Your task to perform on an android device: View the shopping cart on target.com. Add alienware area 51 to the cart on target.com, then select checkout. Image 0: 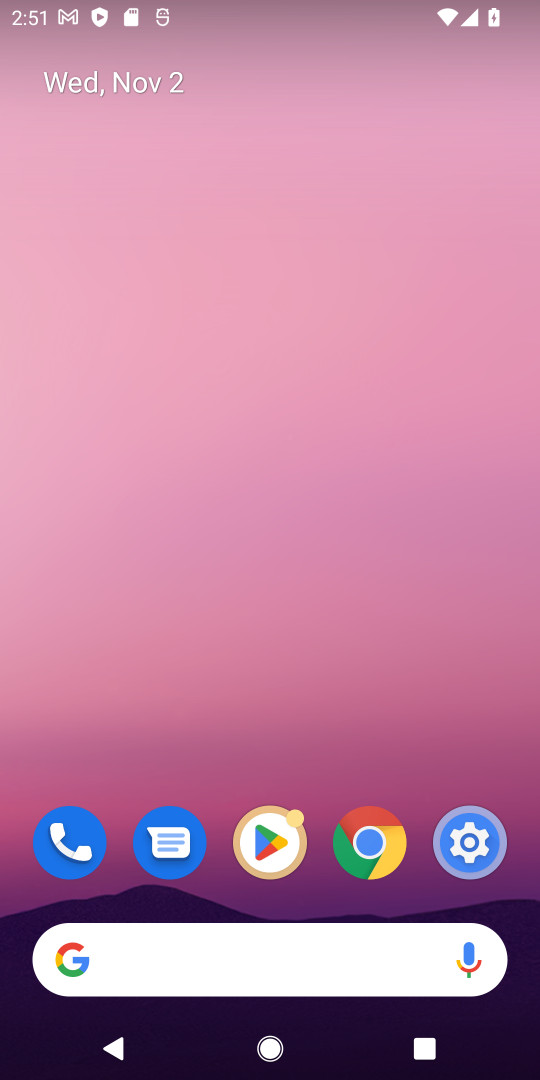
Step 0: click (169, 946)
Your task to perform on an android device: View the shopping cart on target.com. Add alienware area 51 to the cart on target.com, then select checkout. Image 1: 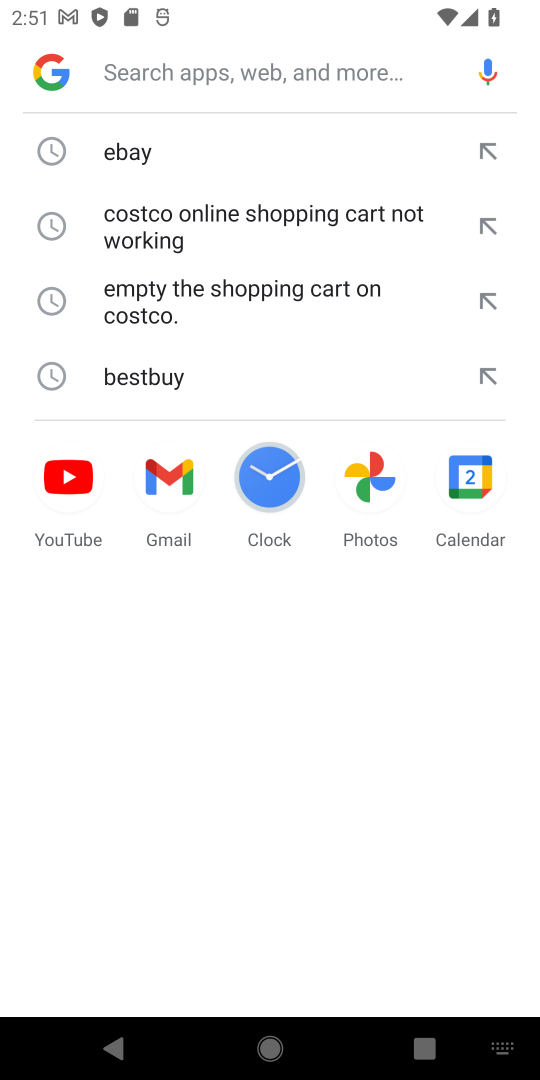
Step 1: type "target"
Your task to perform on an android device: View the shopping cart on target.com. Add alienware area 51 to the cart on target.com, then select checkout. Image 2: 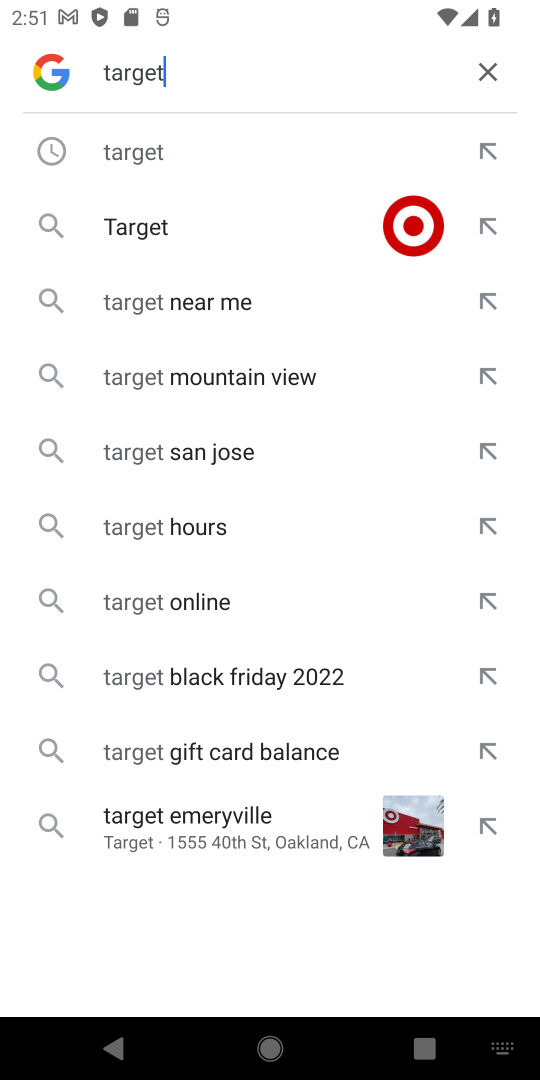
Step 2: click (132, 228)
Your task to perform on an android device: View the shopping cart on target.com. Add alienware area 51 to the cart on target.com, then select checkout. Image 3: 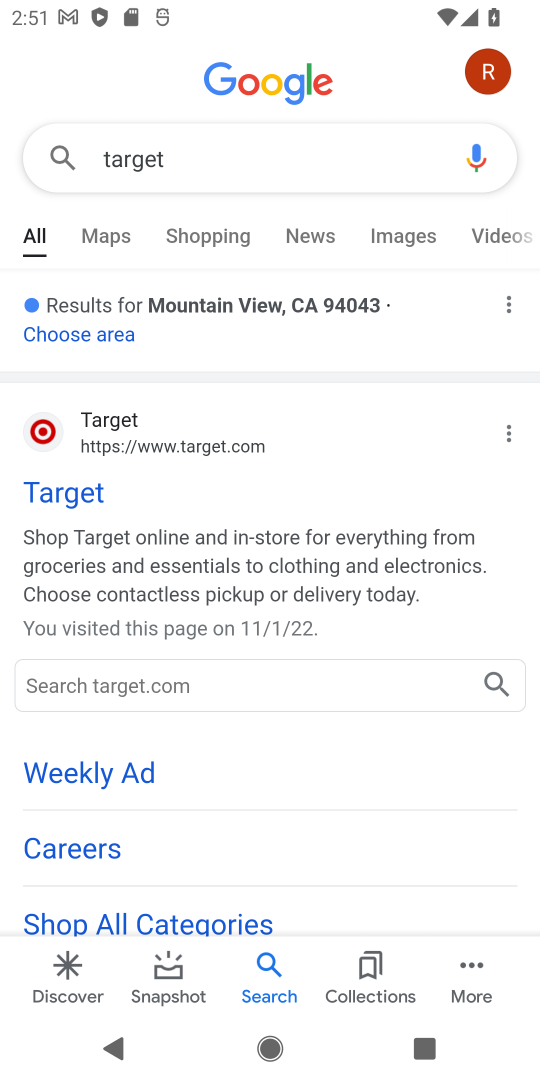
Step 3: click (49, 487)
Your task to perform on an android device: View the shopping cart on target.com. Add alienware area 51 to the cart on target.com, then select checkout. Image 4: 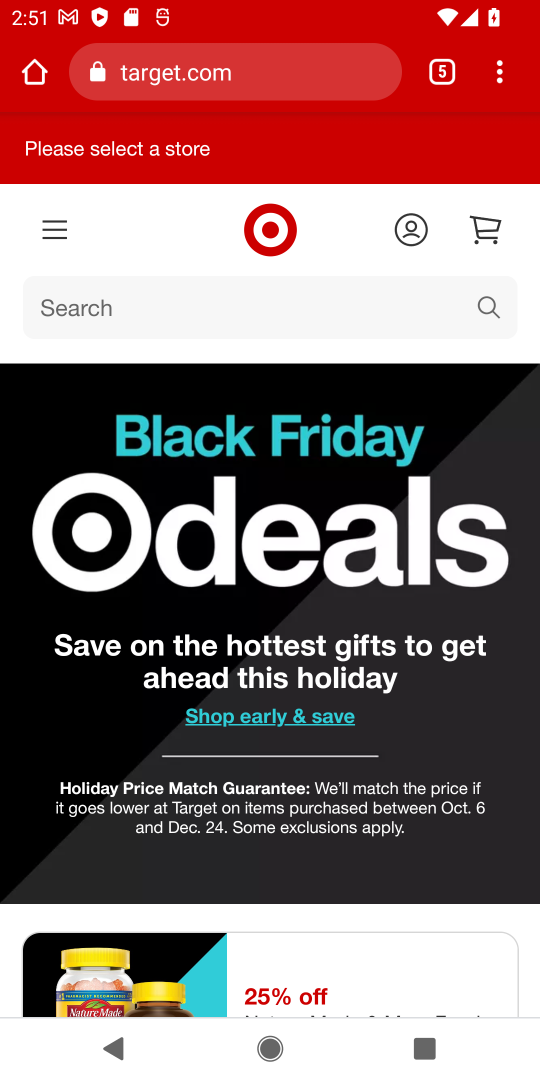
Step 4: click (201, 308)
Your task to perform on an android device: View the shopping cart on target.com. Add alienware area 51 to the cart on target.com, then select checkout. Image 5: 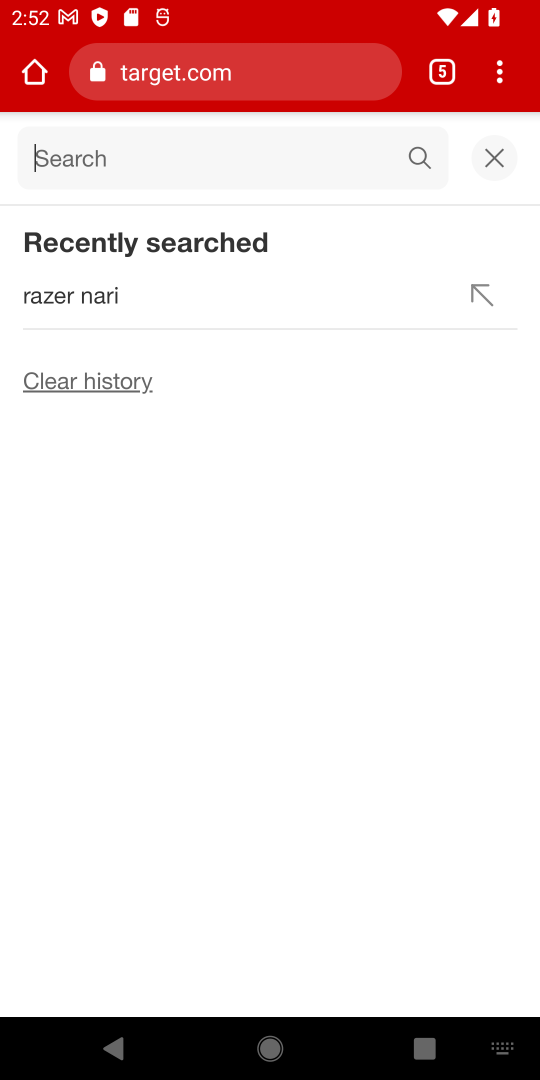
Step 5: type "alienware area 51"
Your task to perform on an android device: View the shopping cart on target.com. Add alienware area 51 to the cart on target.com, then select checkout. Image 6: 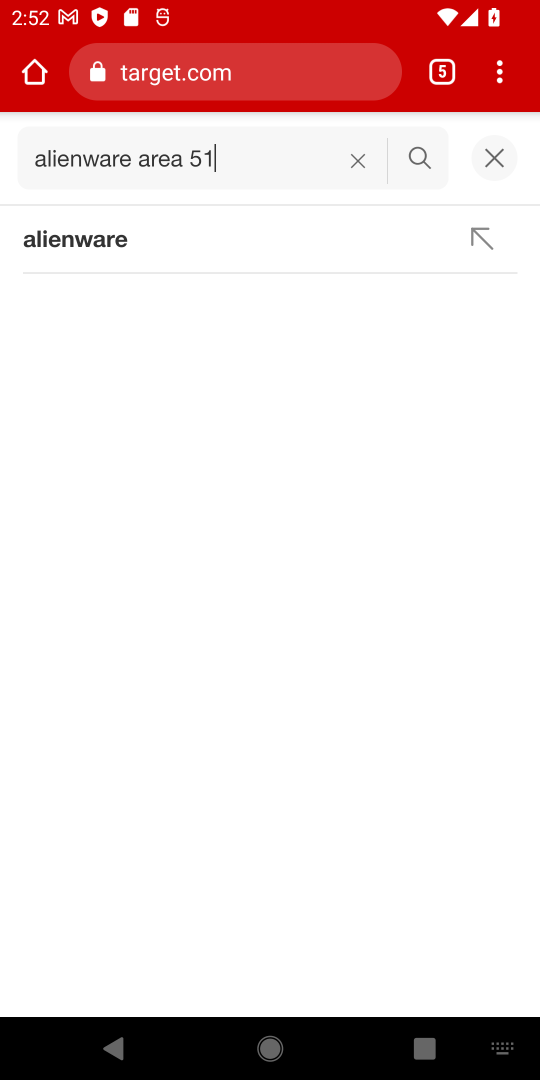
Step 6: click (413, 157)
Your task to perform on an android device: View the shopping cart on target.com. Add alienware area 51 to the cart on target.com, then select checkout. Image 7: 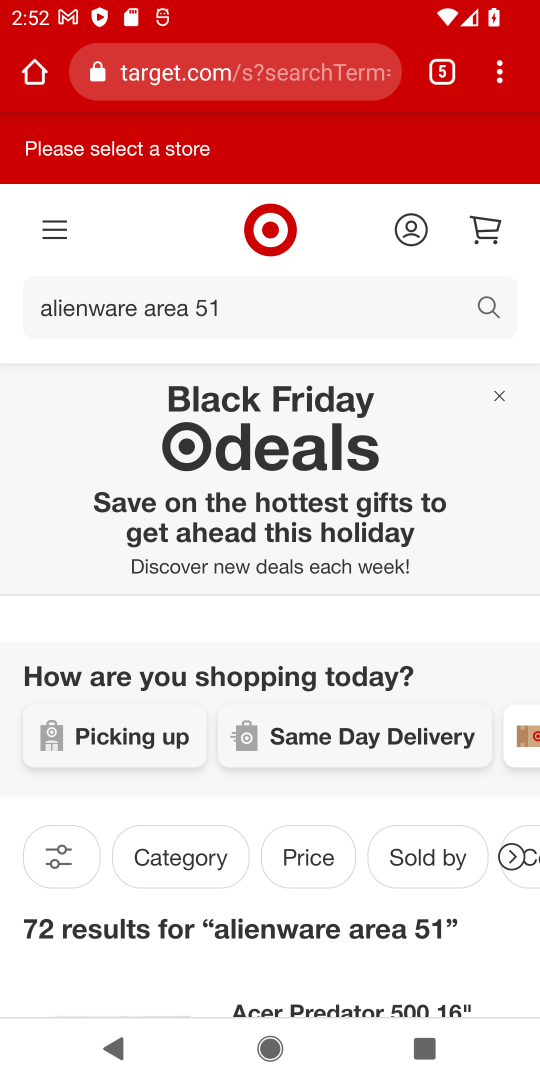
Step 7: drag from (329, 655) to (312, 359)
Your task to perform on an android device: View the shopping cart on target.com. Add alienware area 51 to the cart on target.com, then select checkout. Image 8: 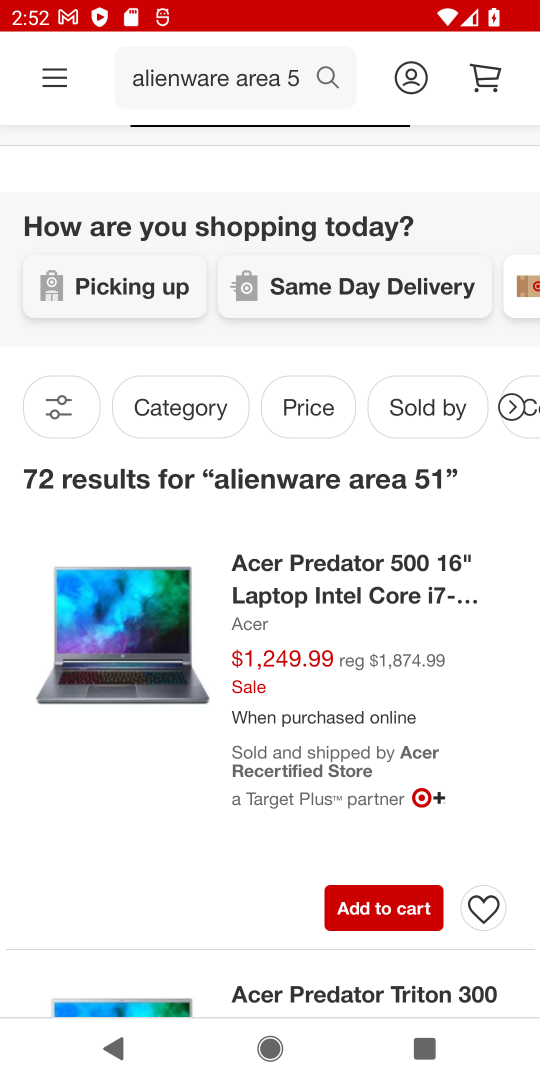
Step 8: drag from (155, 826) to (143, 584)
Your task to perform on an android device: View the shopping cart on target.com. Add alienware area 51 to the cart on target.com, then select checkout. Image 9: 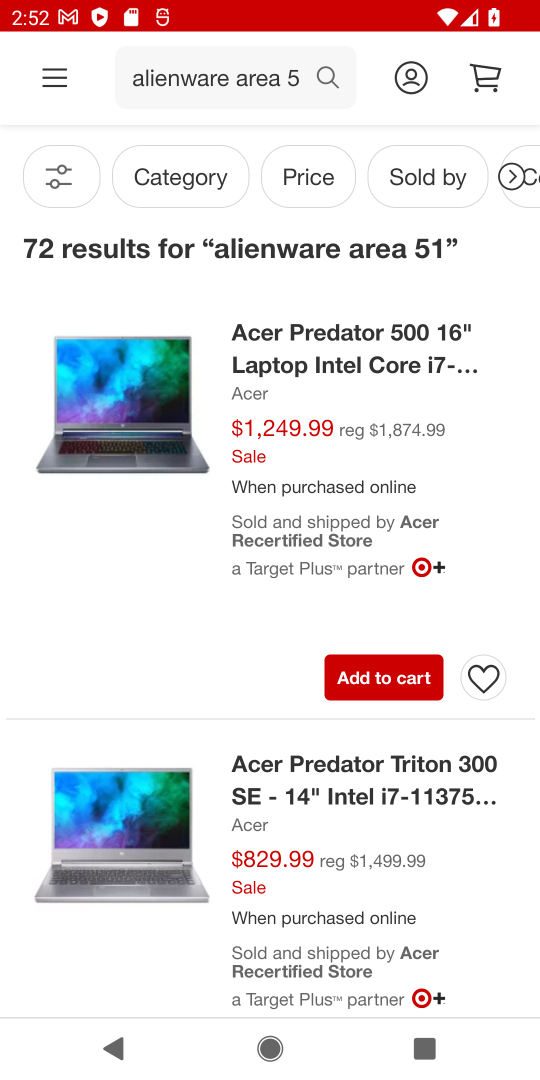
Step 9: click (378, 683)
Your task to perform on an android device: View the shopping cart on target.com. Add alienware area 51 to the cart on target.com, then select checkout. Image 10: 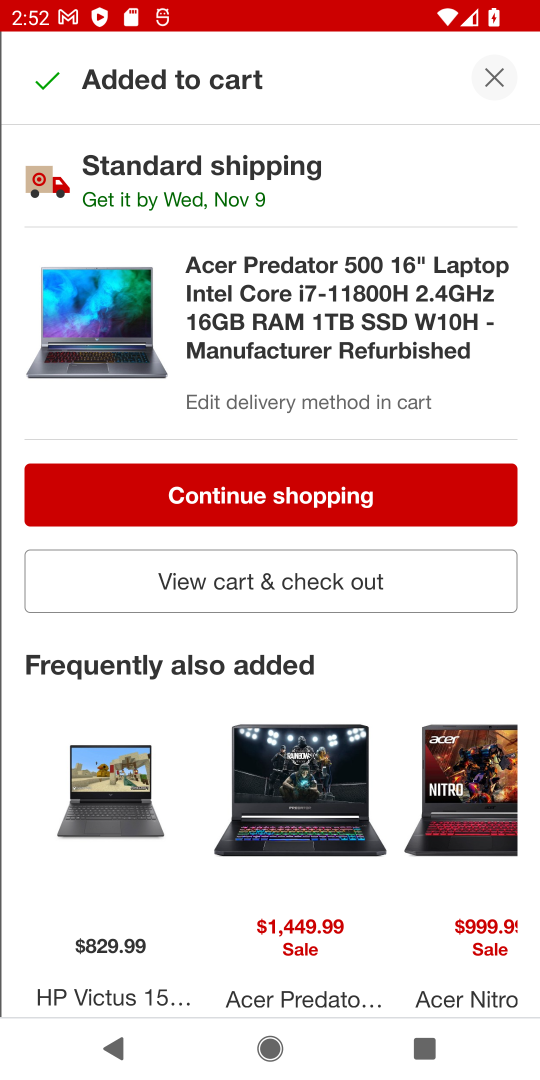
Step 10: click (292, 581)
Your task to perform on an android device: View the shopping cart on target.com. Add alienware area 51 to the cart on target.com, then select checkout. Image 11: 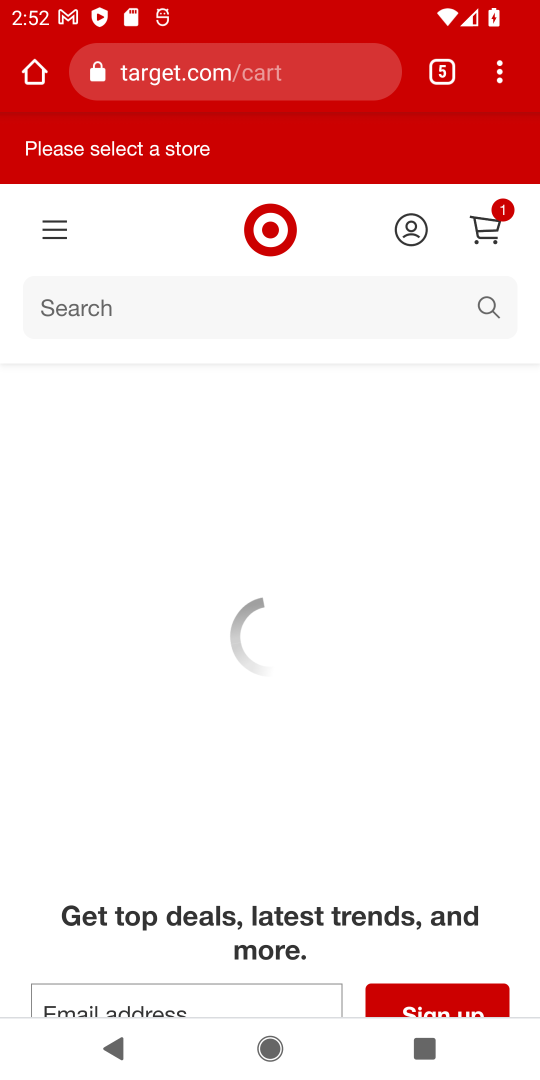
Step 11: type ""
Your task to perform on an android device: View the shopping cart on target.com. Add alienware area 51 to the cart on target.com, then select checkout. Image 12: 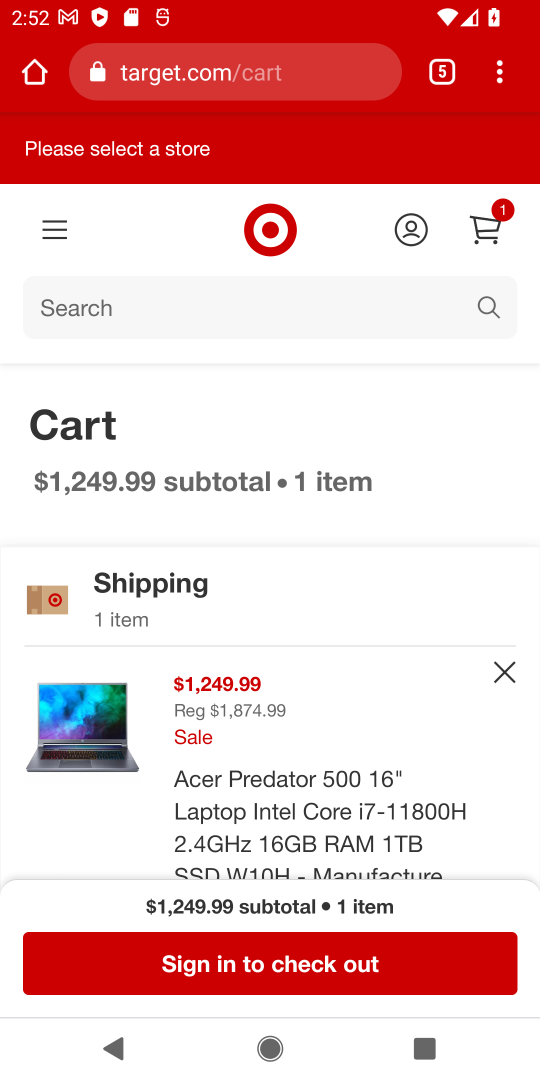
Step 12: click (292, 972)
Your task to perform on an android device: View the shopping cart on target.com. Add alienware area 51 to the cart on target.com, then select checkout. Image 13: 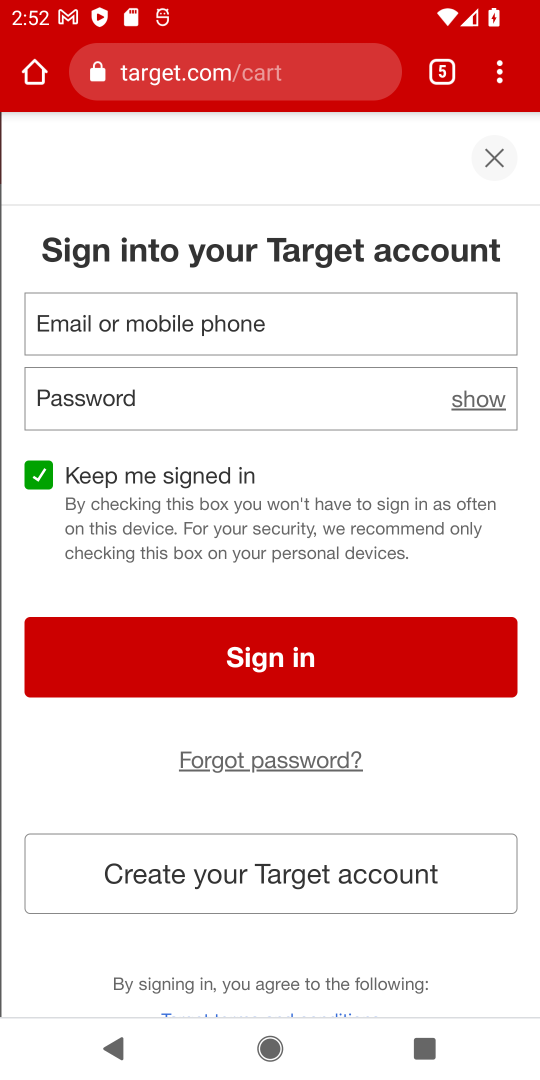
Step 13: task complete